Your task to perform on an android device: see tabs open on other devices in the chrome app Image 0: 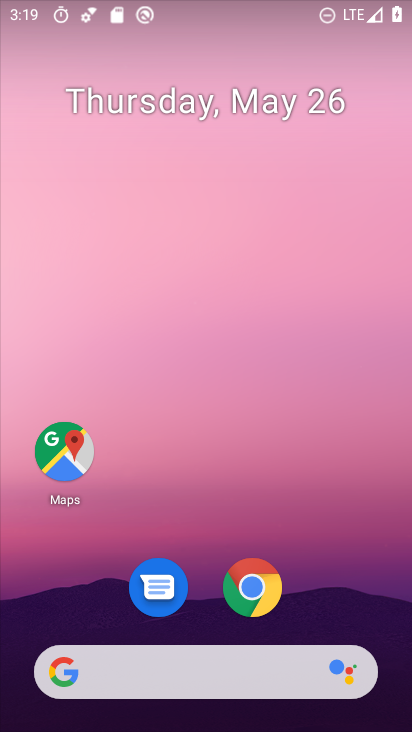
Step 0: click (248, 587)
Your task to perform on an android device: see tabs open on other devices in the chrome app Image 1: 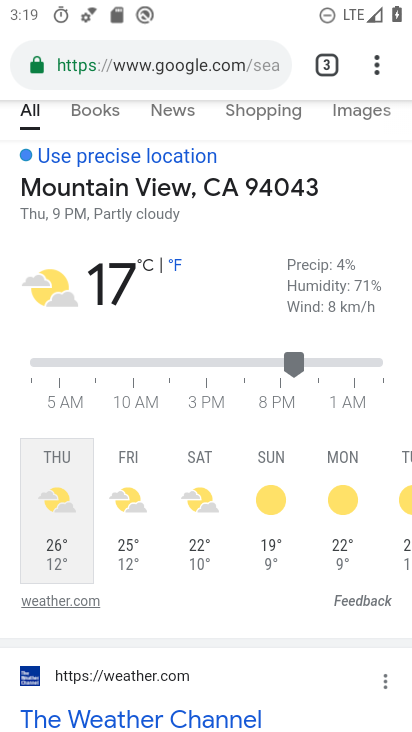
Step 1: task complete